Your task to perform on an android device: Do I have any events this weekend? Image 0: 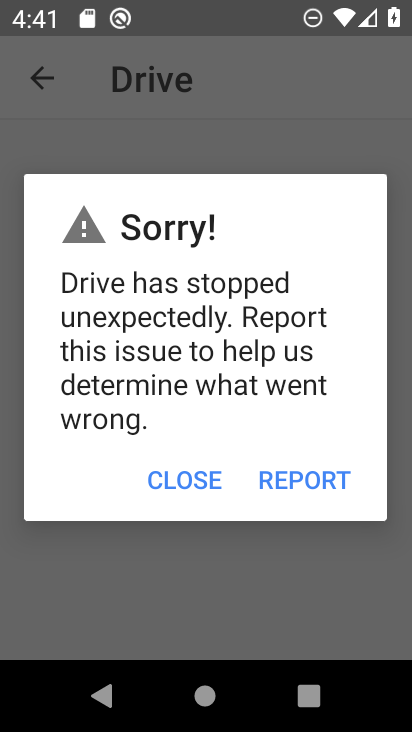
Step 0: click (191, 482)
Your task to perform on an android device: Do I have any events this weekend? Image 1: 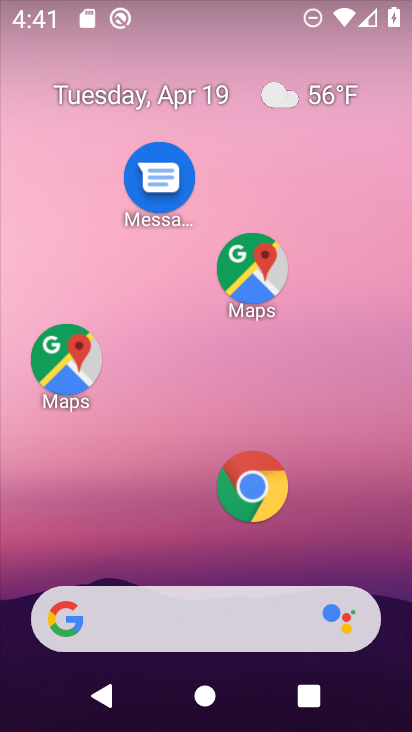
Step 1: press home button
Your task to perform on an android device: Do I have any events this weekend? Image 2: 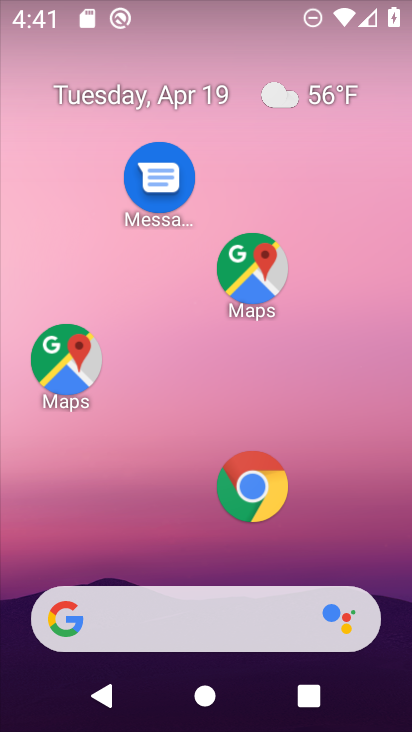
Step 2: drag from (280, 576) to (283, 124)
Your task to perform on an android device: Do I have any events this weekend? Image 3: 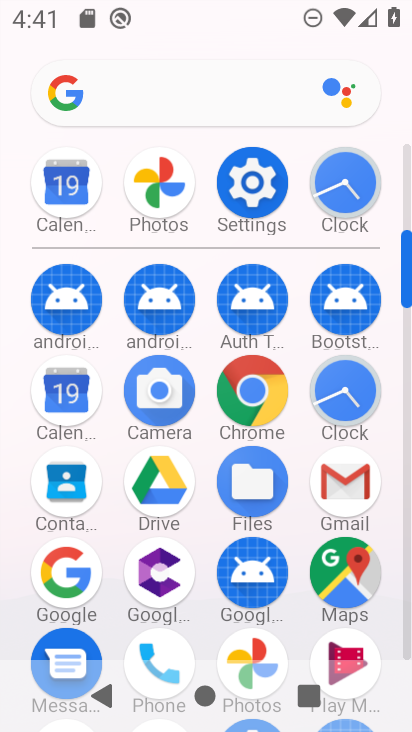
Step 3: click (83, 403)
Your task to perform on an android device: Do I have any events this weekend? Image 4: 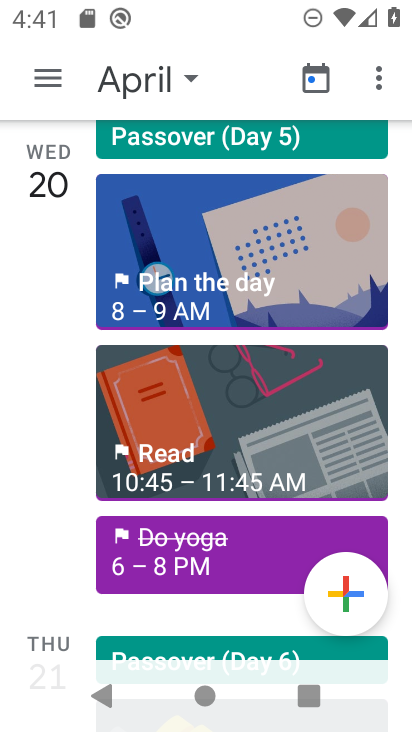
Step 4: task complete